Your task to perform on an android device: show emergency info Image 0: 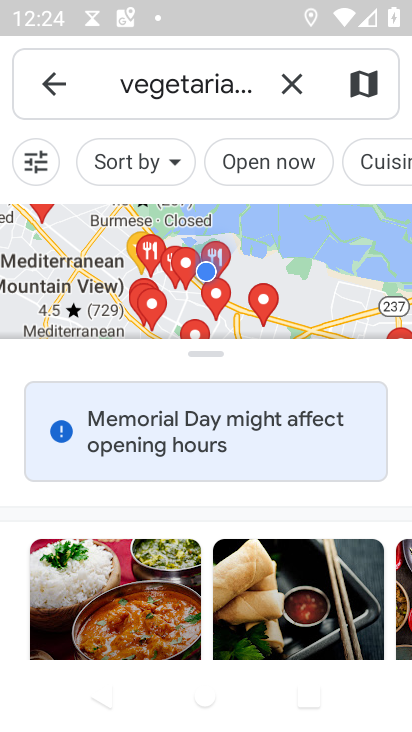
Step 0: press home button
Your task to perform on an android device: show emergency info Image 1: 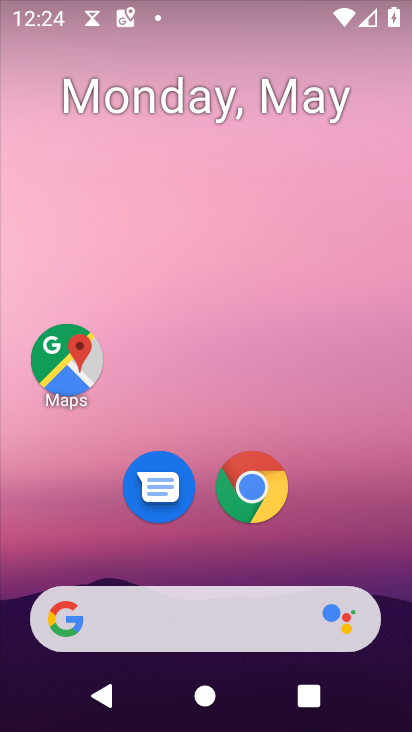
Step 1: drag from (232, 565) to (236, 5)
Your task to perform on an android device: show emergency info Image 2: 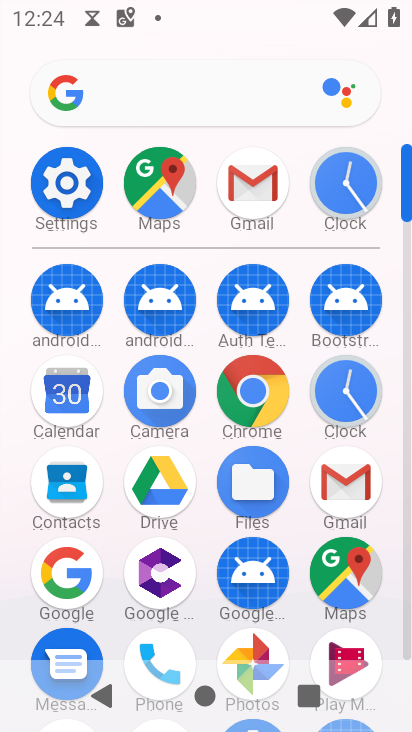
Step 2: click (86, 176)
Your task to perform on an android device: show emergency info Image 3: 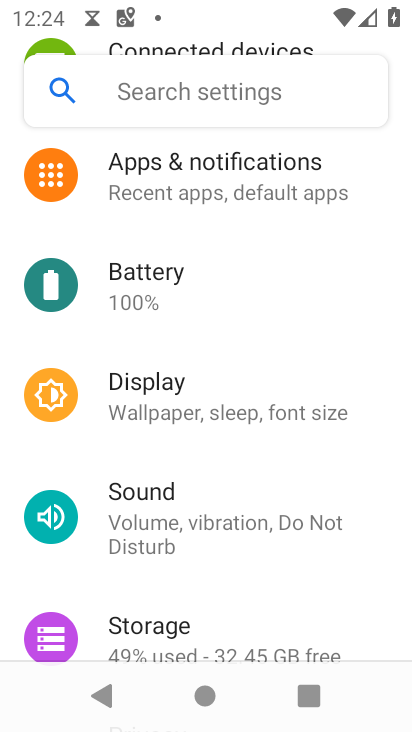
Step 3: drag from (262, 559) to (287, 92)
Your task to perform on an android device: show emergency info Image 4: 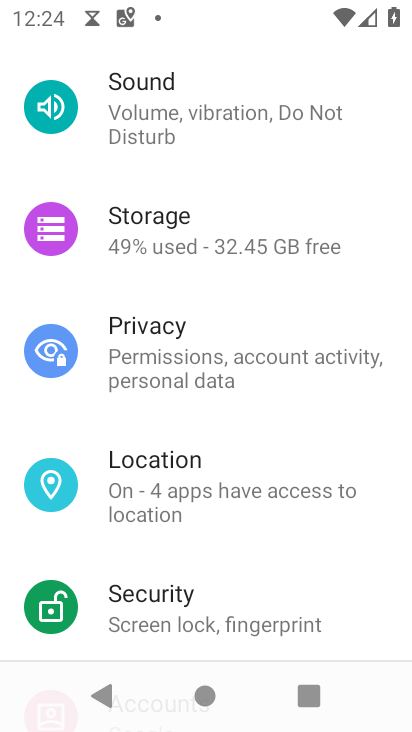
Step 4: drag from (216, 546) to (246, 31)
Your task to perform on an android device: show emergency info Image 5: 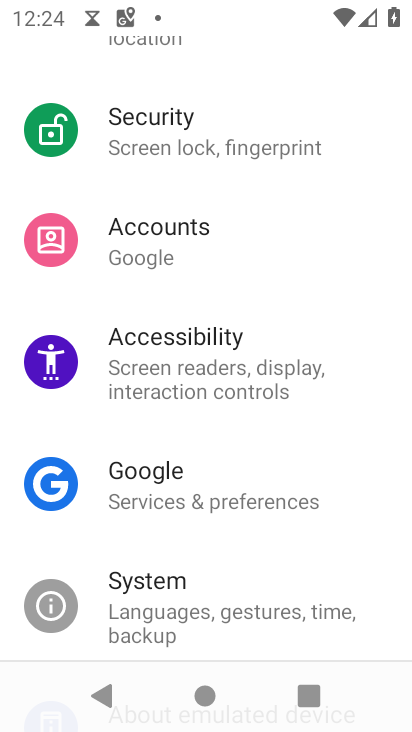
Step 5: drag from (240, 588) to (289, 11)
Your task to perform on an android device: show emergency info Image 6: 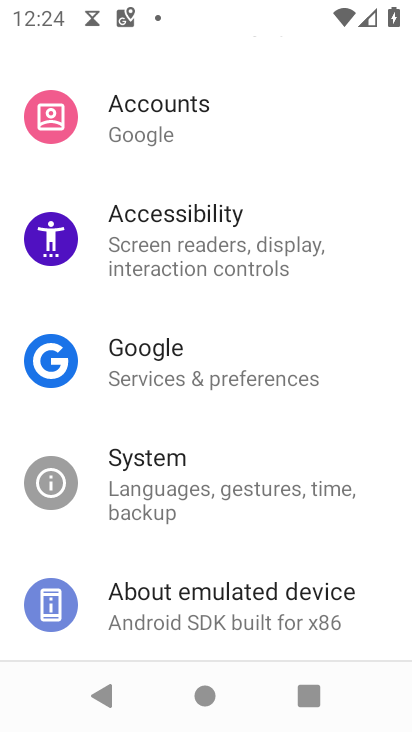
Step 6: click (195, 611)
Your task to perform on an android device: show emergency info Image 7: 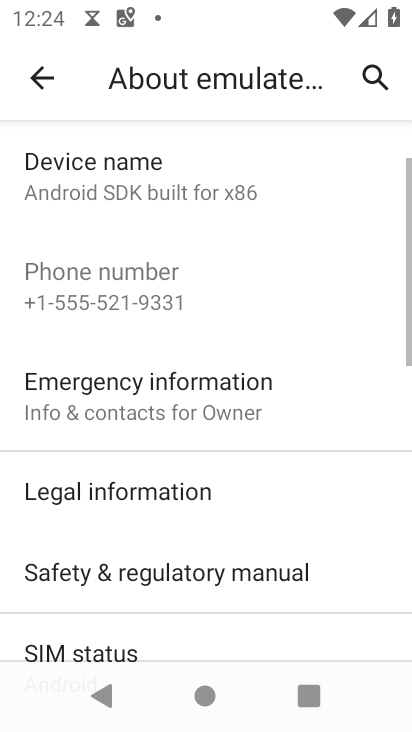
Step 7: click (153, 394)
Your task to perform on an android device: show emergency info Image 8: 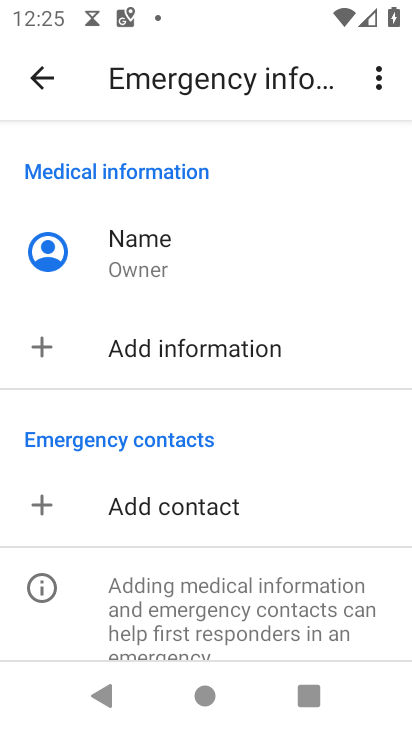
Step 8: task complete